Your task to perform on an android device: Search for vegetarian restaurants on Maps Image 0: 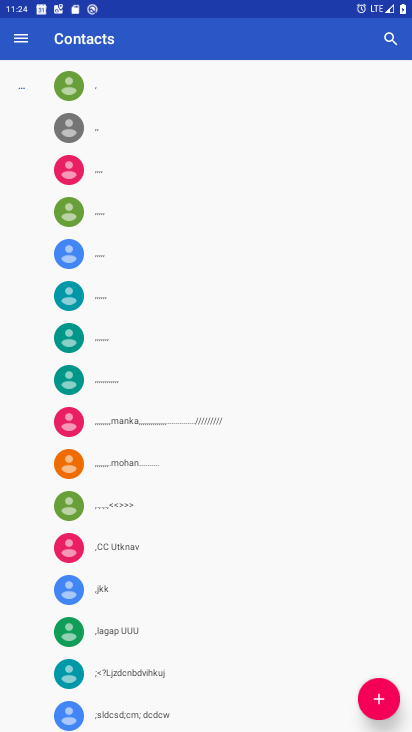
Step 0: press home button
Your task to perform on an android device: Search for vegetarian restaurants on Maps Image 1: 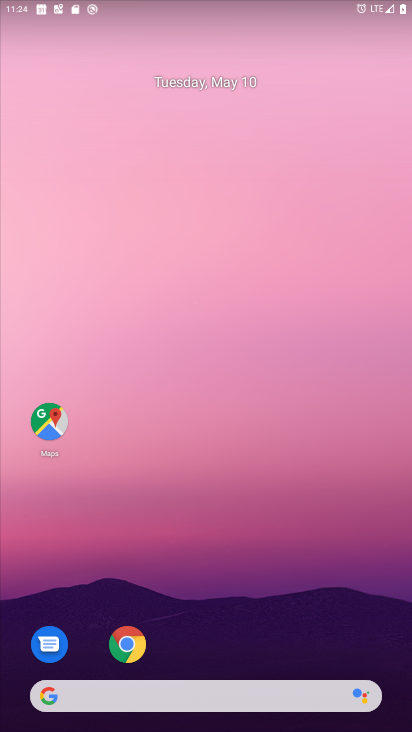
Step 1: drag from (336, 696) to (352, 262)
Your task to perform on an android device: Search for vegetarian restaurants on Maps Image 2: 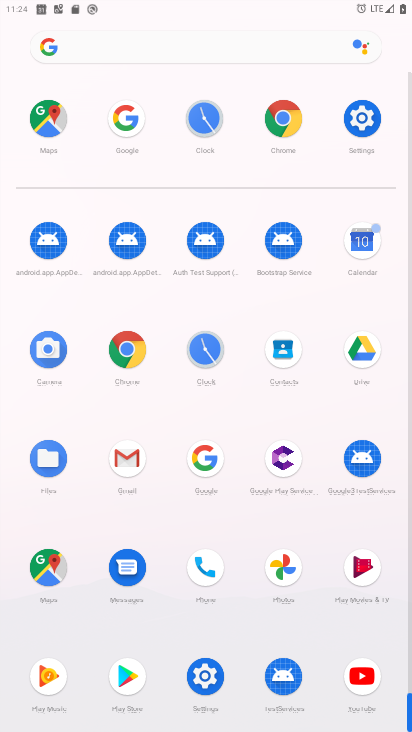
Step 2: click (50, 572)
Your task to perform on an android device: Search for vegetarian restaurants on Maps Image 3: 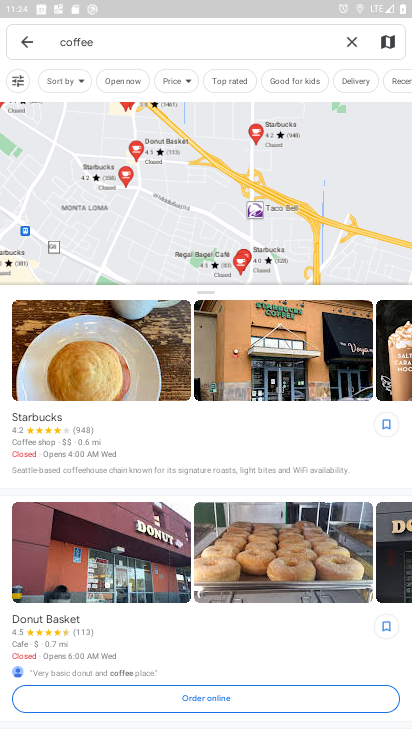
Step 3: click (349, 36)
Your task to perform on an android device: Search for vegetarian restaurants on Maps Image 4: 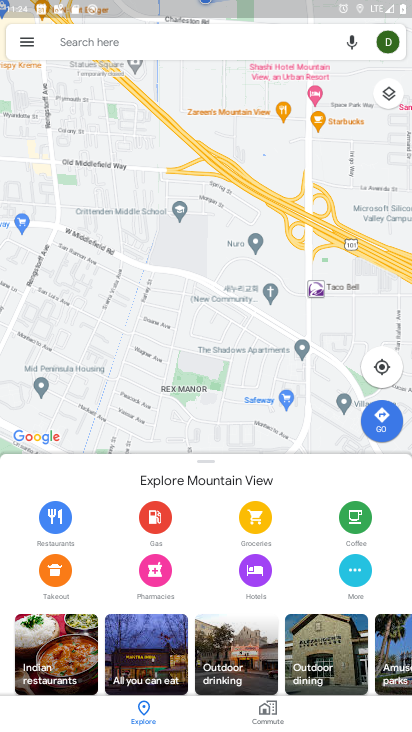
Step 4: click (292, 62)
Your task to perform on an android device: Search for vegetarian restaurants on Maps Image 5: 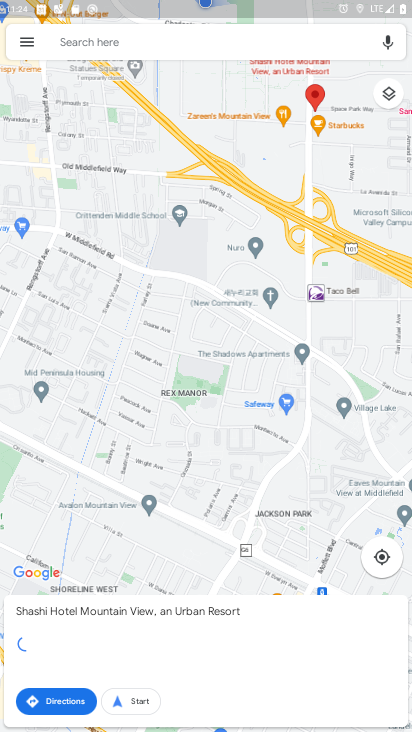
Step 5: click (291, 48)
Your task to perform on an android device: Search for vegetarian restaurants on Maps Image 6: 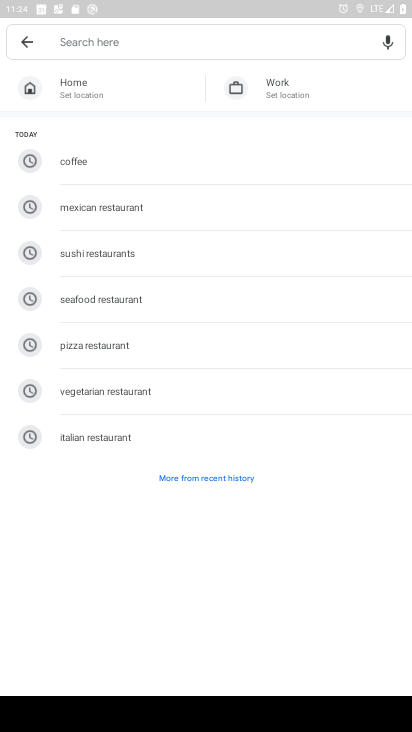
Step 6: type "vegetarian re"
Your task to perform on an android device: Search for vegetarian restaurants on Maps Image 7: 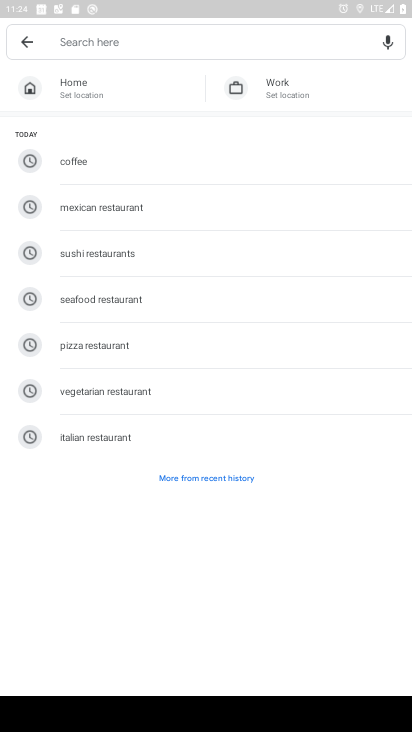
Step 7: click (172, 207)
Your task to perform on an android device: Search for vegetarian restaurants on Maps Image 8: 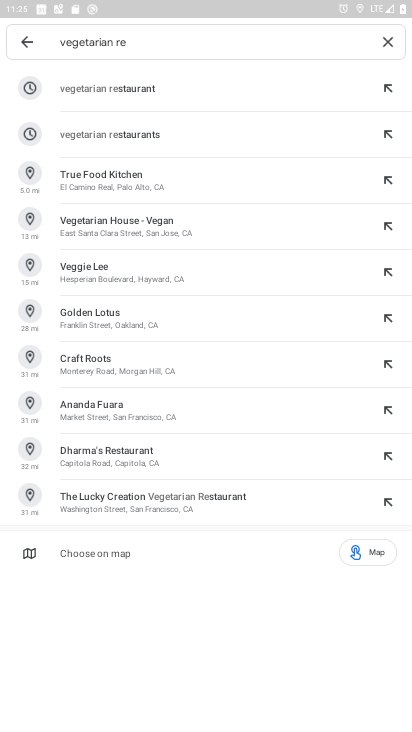
Step 8: click (162, 145)
Your task to perform on an android device: Search for vegetarian restaurants on Maps Image 9: 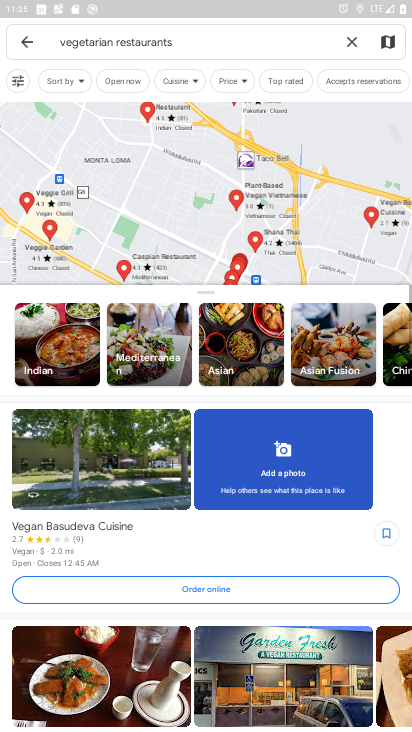
Step 9: task complete